Your task to perform on an android device: see sites visited before in the chrome app Image 0: 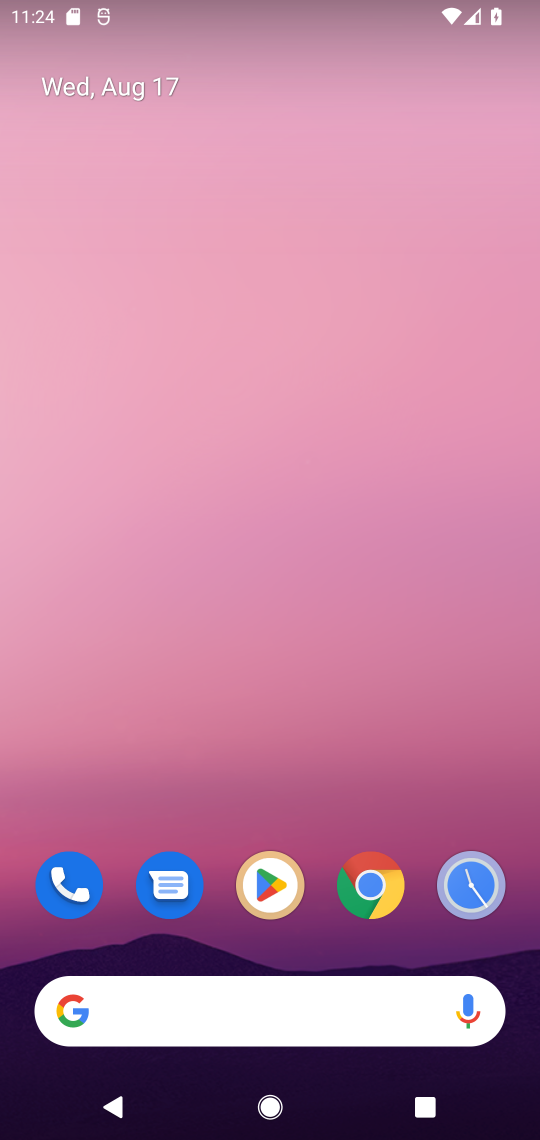
Step 0: click (369, 897)
Your task to perform on an android device: see sites visited before in the chrome app Image 1: 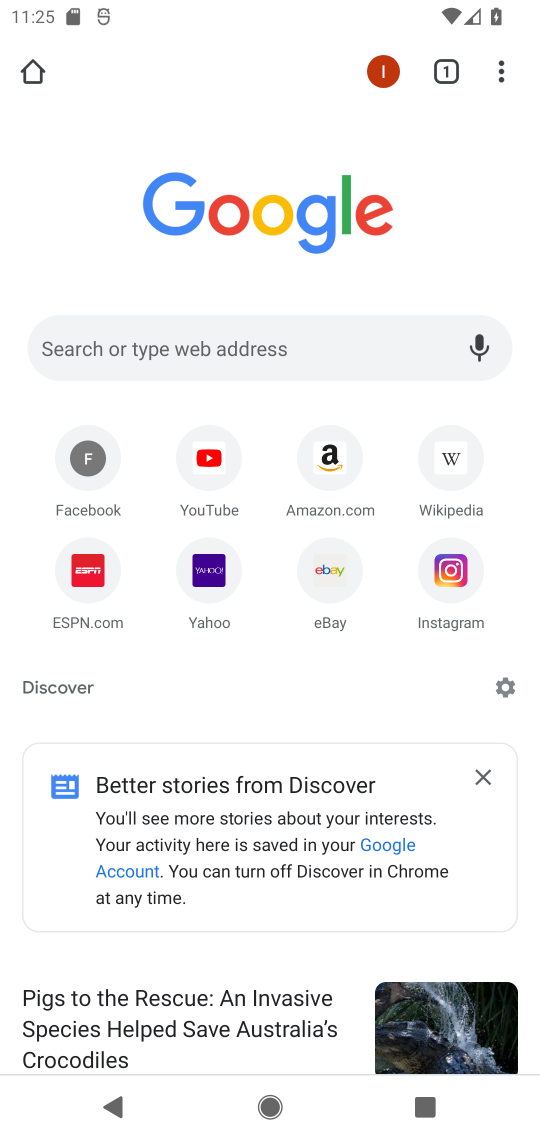
Step 1: click (509, 79)
Your task to perform on an android device: see sites visited before in the chrome app Image 2: 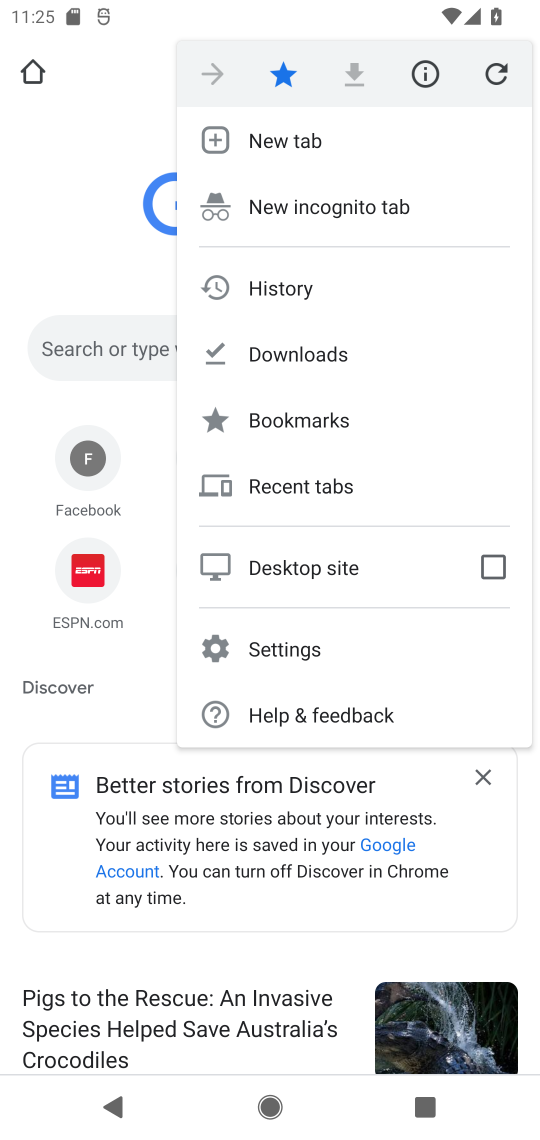
Step 2: click (249, 301)
Your task to perform on an android device: see sites visited before in the chrome app Image 3: 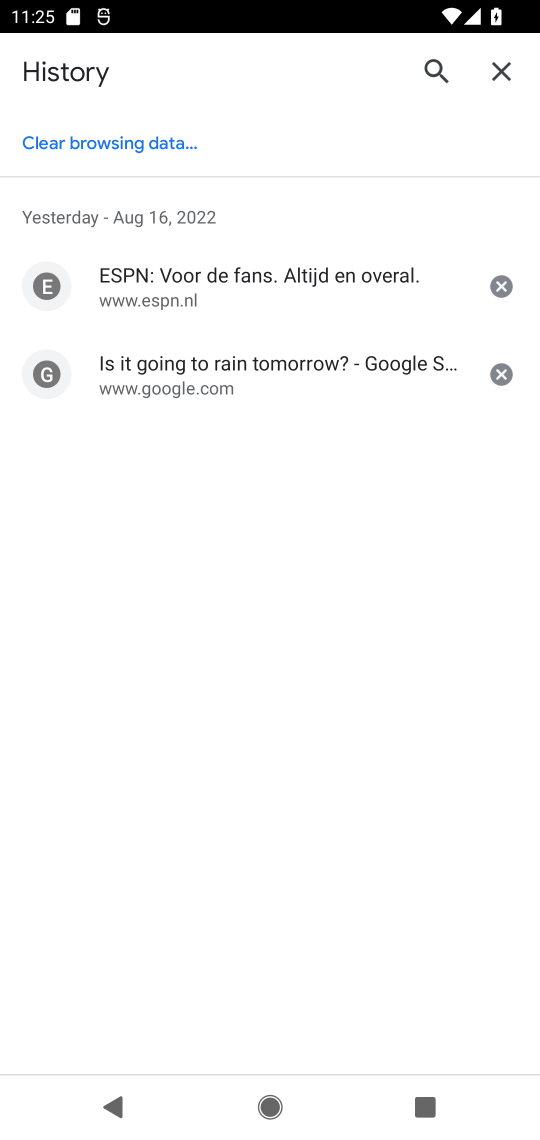
Step 3: task complete